Your task to perform on an android device: choose inbox layout in the gmail app Image 0: 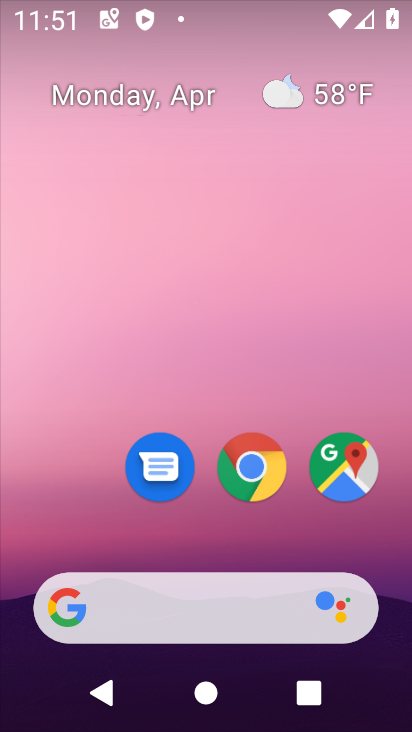
Step 0: drag from (139, 543) to (172, 16)
Your task to perform on an android device: choose inbox layout in the gmail app Image 1: 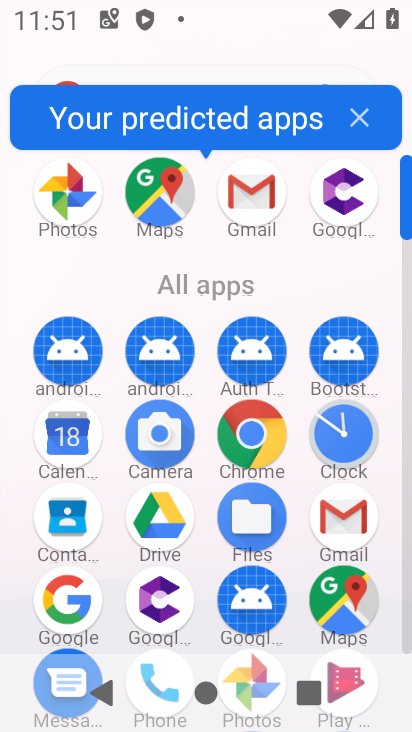
Step 1: click (255, 213)
Your task to perform on an android device: choose inbox layout in the gmail app Image 2: 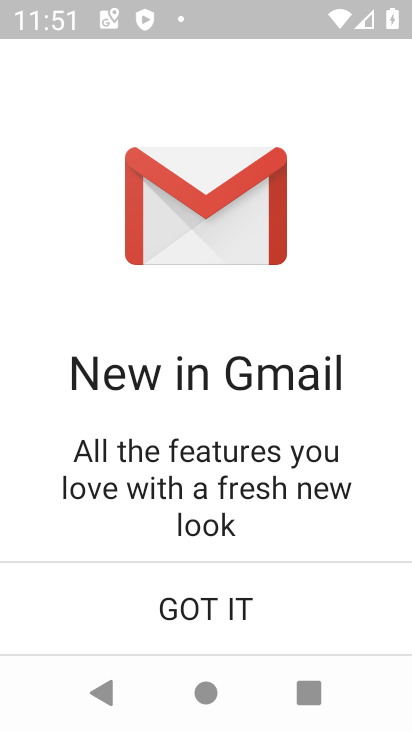
Step 2: click (277, 615)
Your task to perform on an android device: choose inbox layout in the gmail app Image 3: 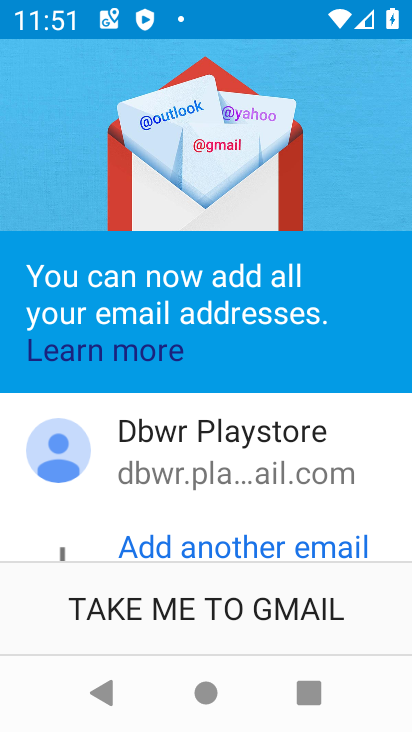
Step 3: click (169, 604)
Your task to perform on an android device: choose inbox layout in the gmail app Image 4: 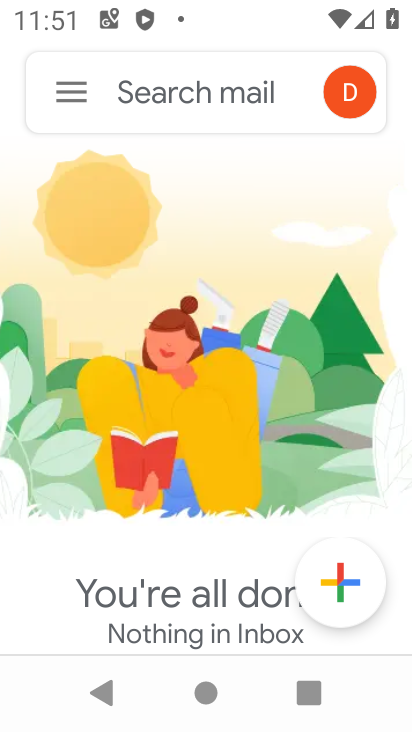
Step 4: click (48, 87)
Your task to perform on an android device: choose inbox layout in the gmail app Image 5: 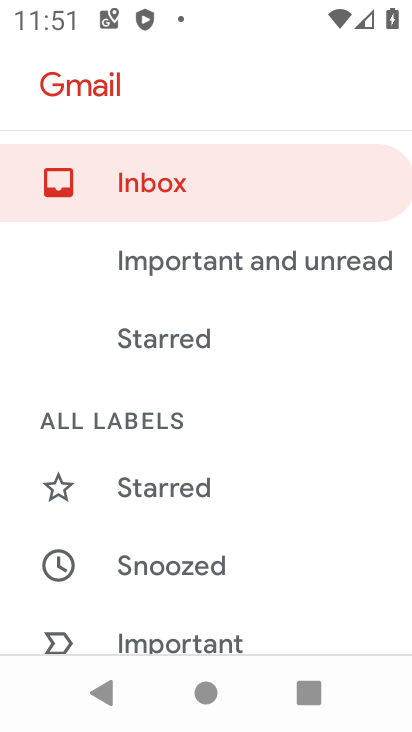
Step 5: drag from (177, 582) to (260, 5)
Your task to perform on an android device: choose inbox layout in the gmail app Image 6: 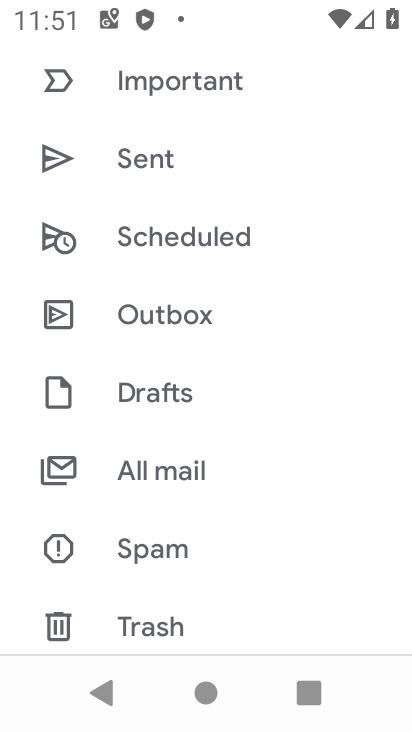
Step 6: drag from (237, 530) to (287, 61)
Your task to perform on an android device: choose inbox layout in the gmail app Image 7: 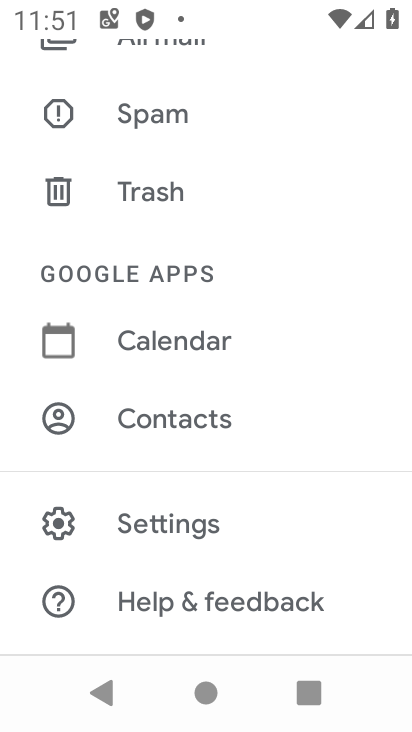
Step 7: click (161, 527)
Your task to perform on an android device: choose inbox layout in the gmail app Image 8: 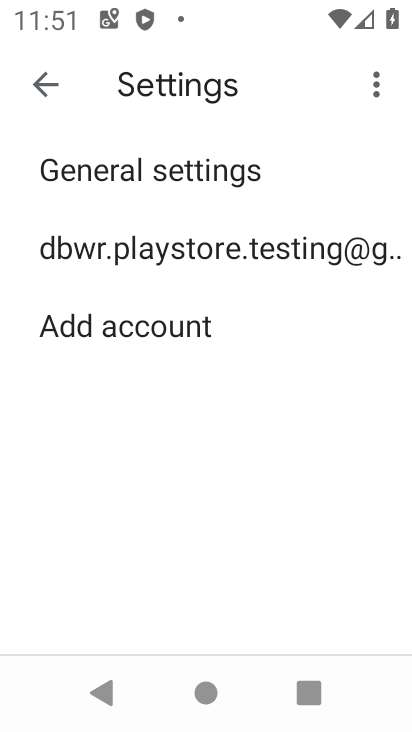
Step 8: click (265, 274)
Your task to perform on an android device: choose inbox layout in the gmail app Image 9: 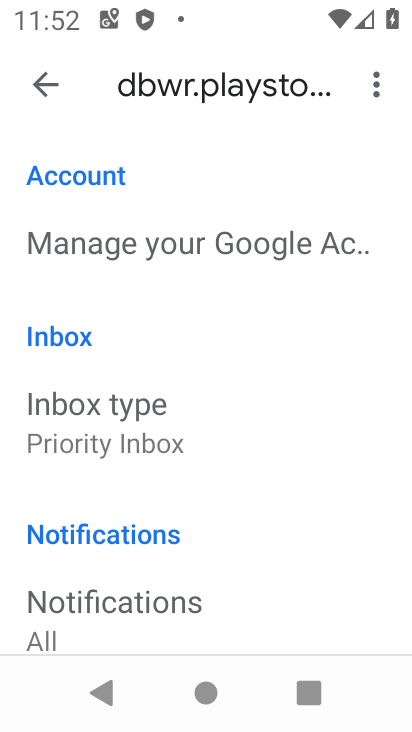
Step 9: drag from (127, 486) to (181, 75)
Your task to perform on an android device: choose inbox layout in the gmail app Image 10: 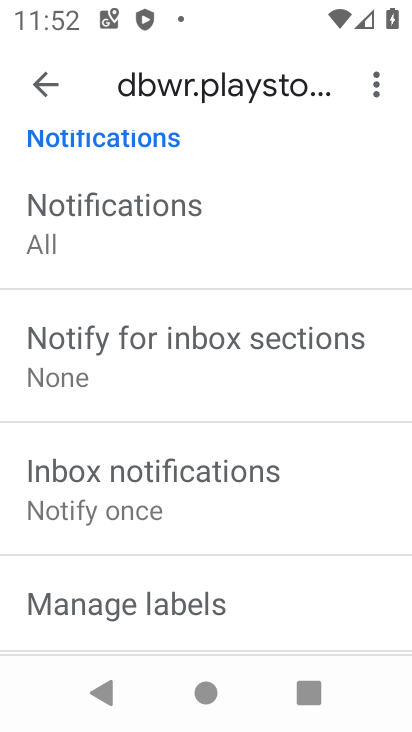
Step 10: drag from (158, 182) to (134, 563)
Your task to perform on an android device: choose inbox layout in the gmail app Image 11: 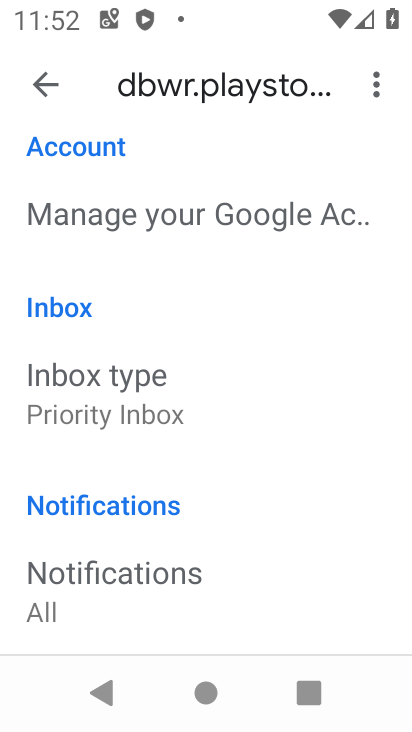
Step 11: click (128, 432)
Your task to perform on an android device: choose inbox layout in the gmail app Image 12: 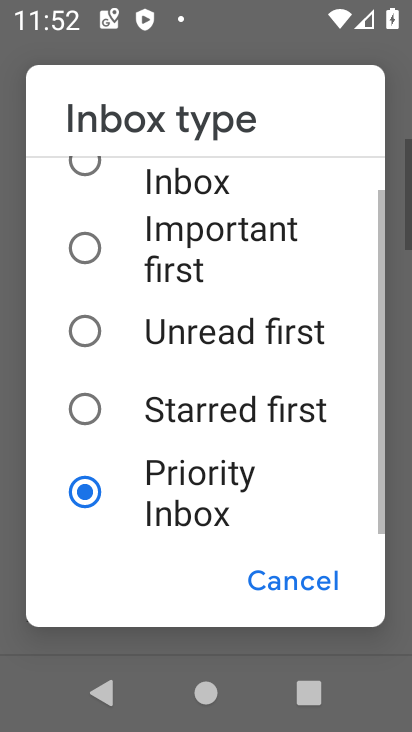
Step 12: click (266, 342)
Your task to perform on an android device: choose inbox layout in the gmail app Image 13: 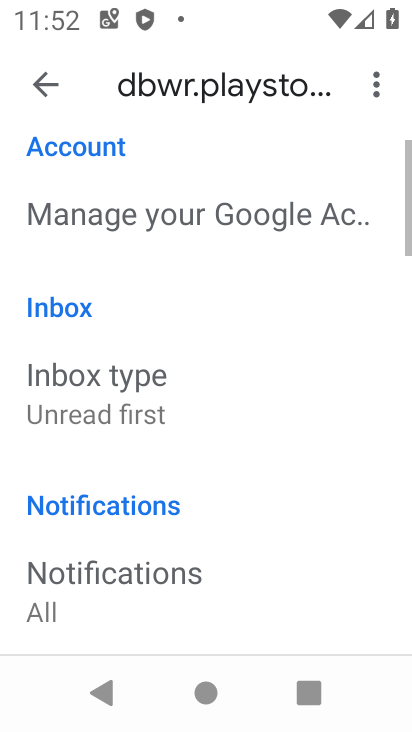
Step 13: task complete